Your task to perform on an android device: turn on sleep mode Image 0: 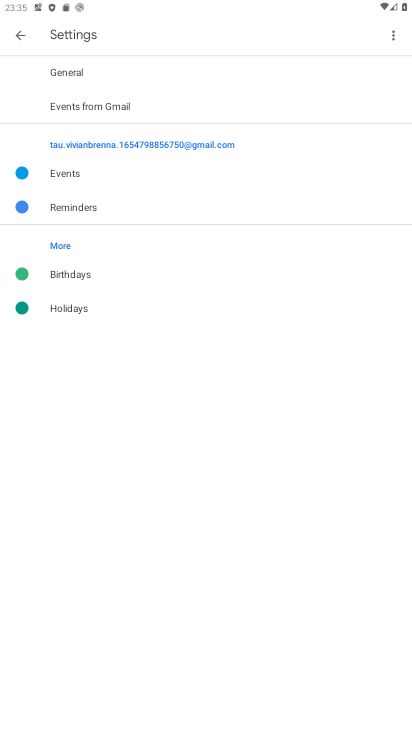
Step 0: drag from (234, 4) to (237, 617)
Your task to perform on an android device: turn on sleep mode Image 1: 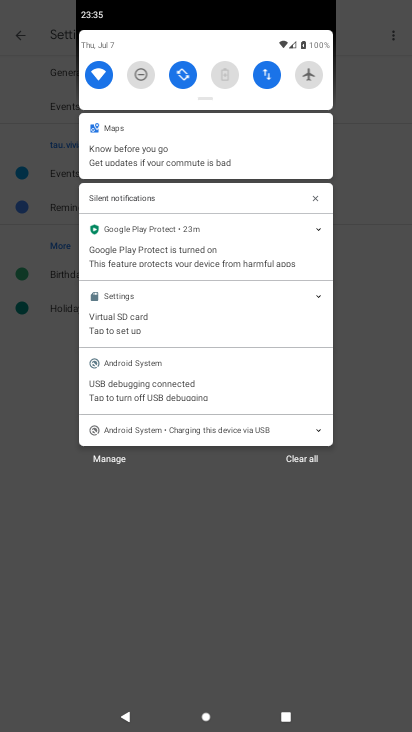
Step 1: drag from (178, 50) to (202, 675)
Your task to perform on an android device: turn on sleep mode Image 2: 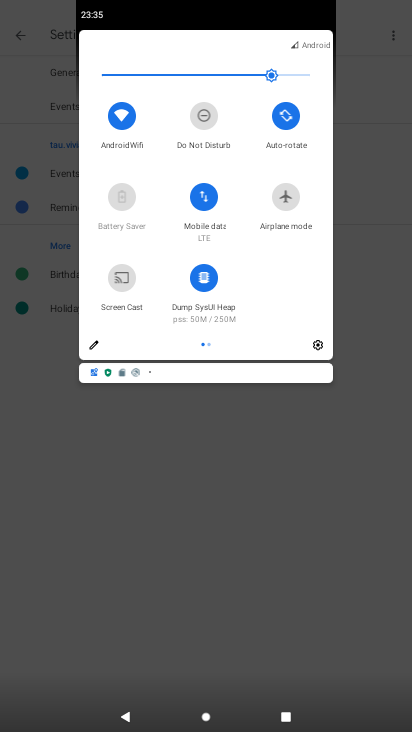
Step 2: click (317, 337)
Your task to perform on an android device: turn on sleep mode Image 3: 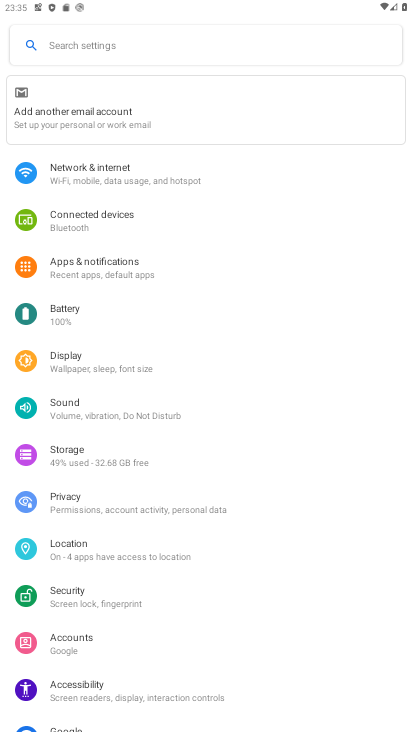
Step 3: task complete